Your task to perform on an android device: turn on javascript in the chrome app Image 0: 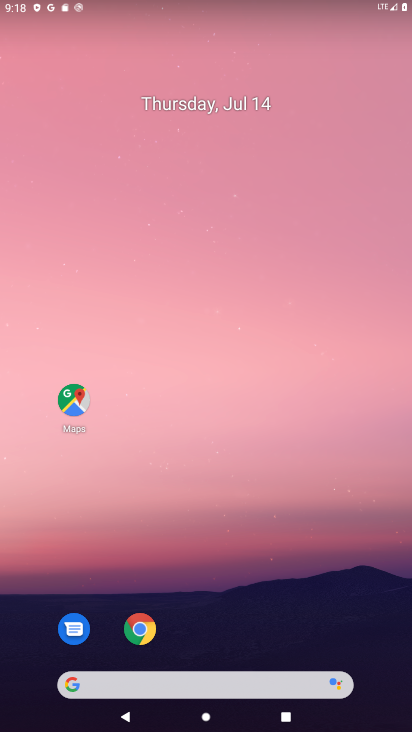
Step 0: click (137, 628)
Your task to perform on an android device: turn on javascript in the chrome app Image 1: 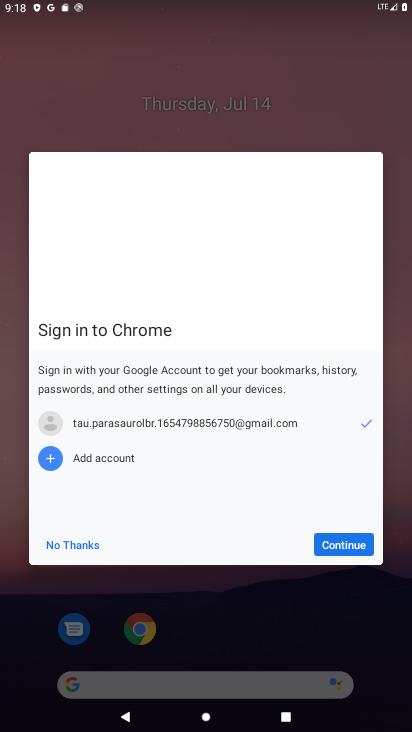
Step 1: click (86, 544)
Your task to perform on an android device: turn on javascript in the chrome app Image 2: 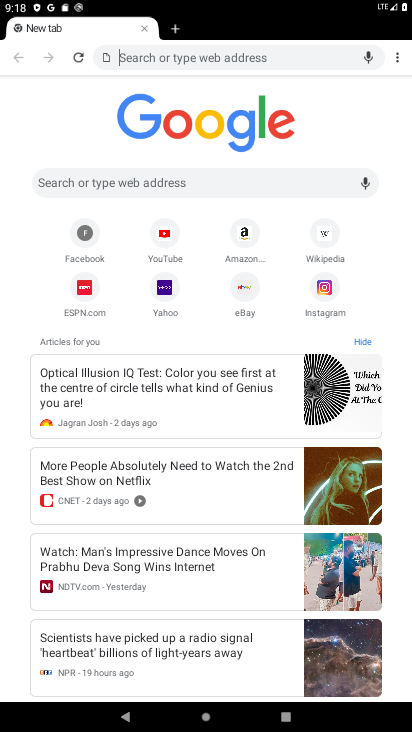
Step 2: click (401, 59)
Your task to perform on an android device: turn on javascript in the chrome app Image 3: 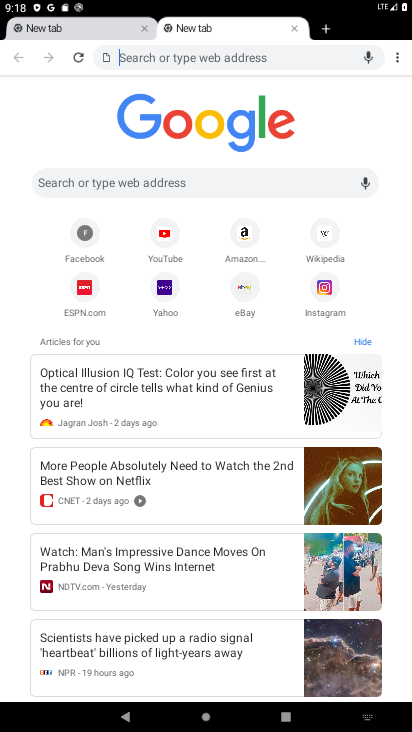
Step 3: click (395, 59)
Your task to perform on an android device: turn on javascript in the chrome app Image 4: 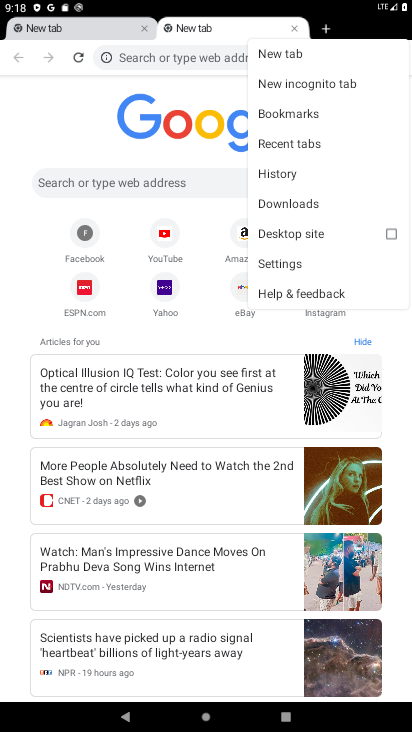
Step 4: click (324, 255)
Your task to perform on an android device: turn on javascript in the chrome app Image 5: 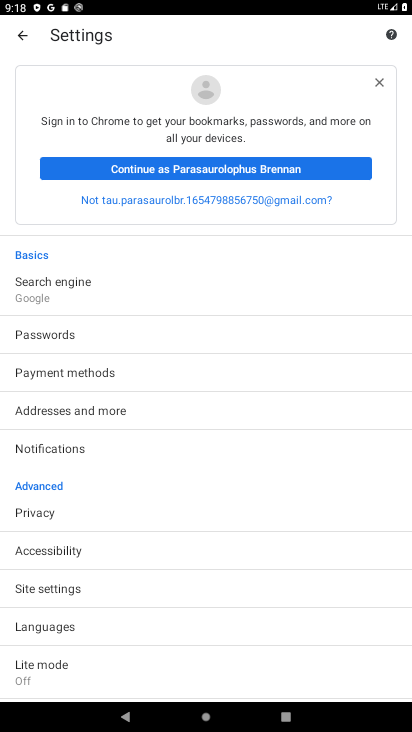
Step 5: click (90, 594)
Your task to perform on an android device: turn on javascript in the chrome app Image 6: 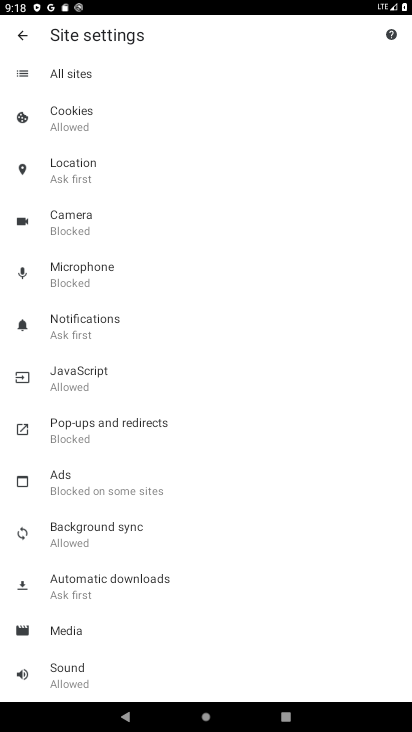
Step 6: click (115, 369)
Your task to perform on an android device: turn on javascript in the chrome app Image 7: 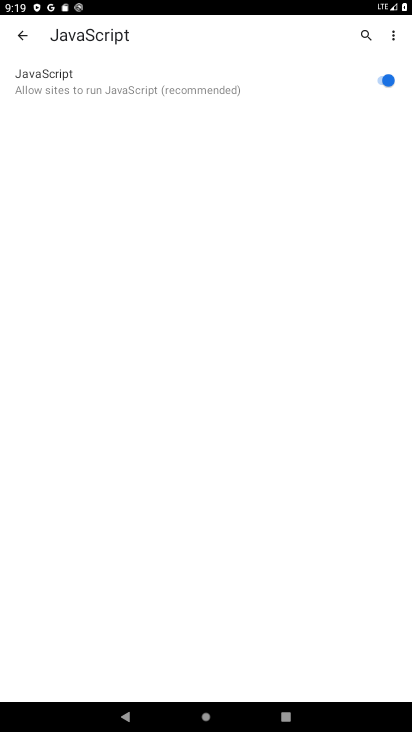
Step 7: task complete